Your task to perform on an android device: Open ESPN.com Image 0: 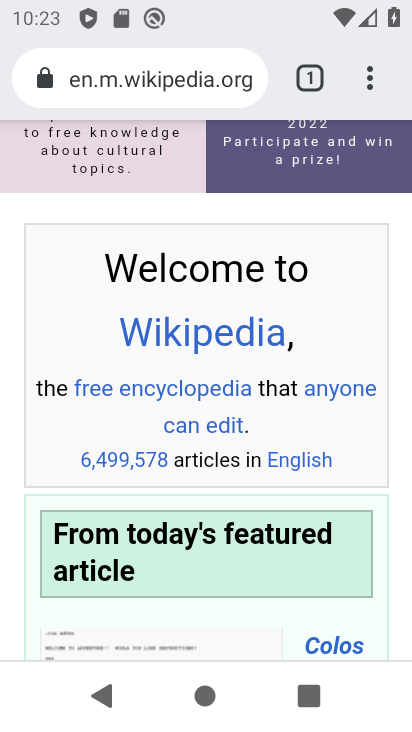
Step 0: press home button
Your task to perform on an android device: Open ESPN.com Image 1: 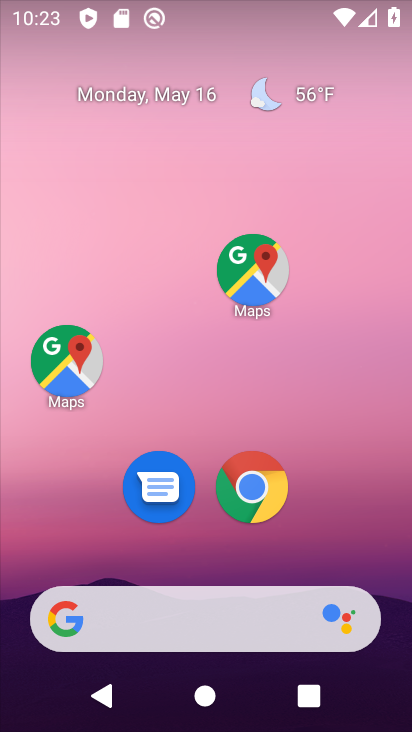
Step 1: drag from (307, 530) to (237, 92)
Your task to perform on an android device: Open ESPN.com Image 2: 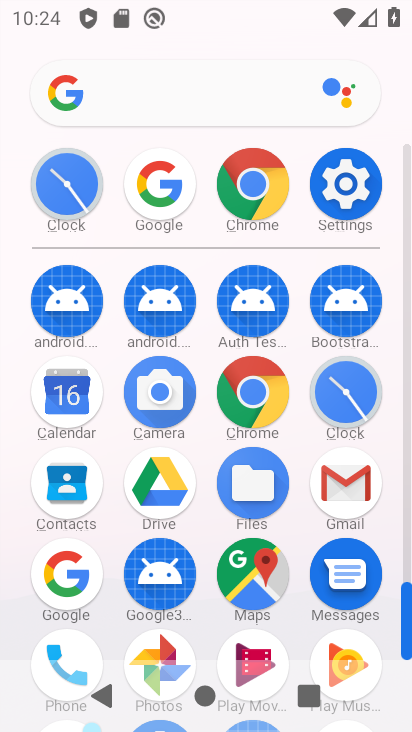
Step 2: click (244, 193)
Your task to perform on an android device: Open ESPN.com Image 3: 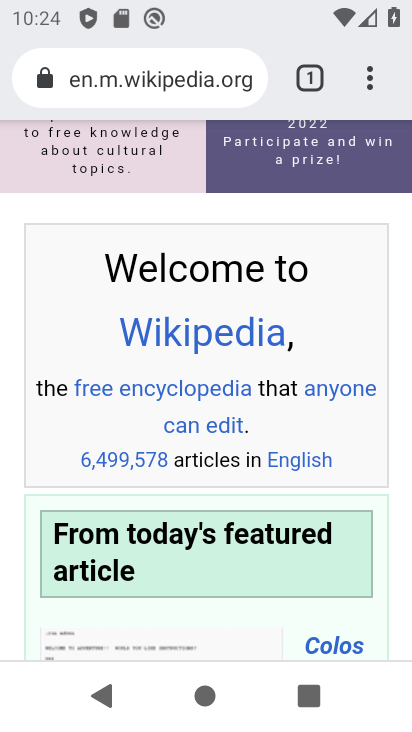
Step 3: press back button
Your task to perform on an android device: Open ESPN.com Image 4: 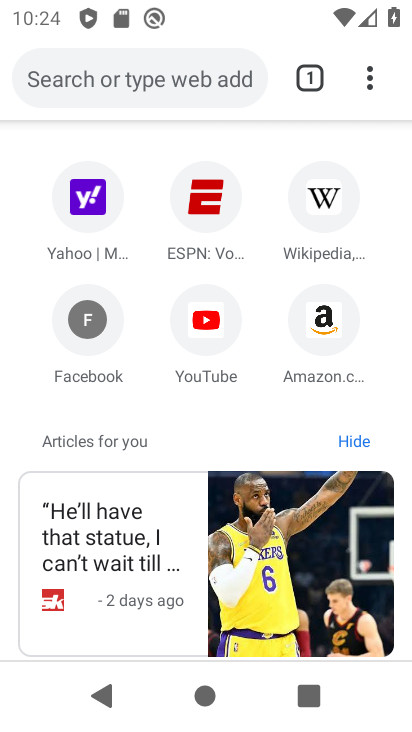
Step 4: click (206, 238)
Your task to perform on an android device: Open ESPN.com Image 5: 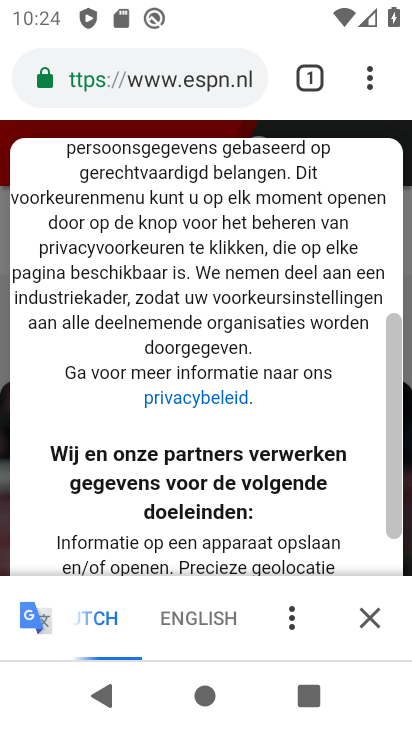
Step 5: task complete